Your task to perform on an android device: turn notification dots on Image 0: 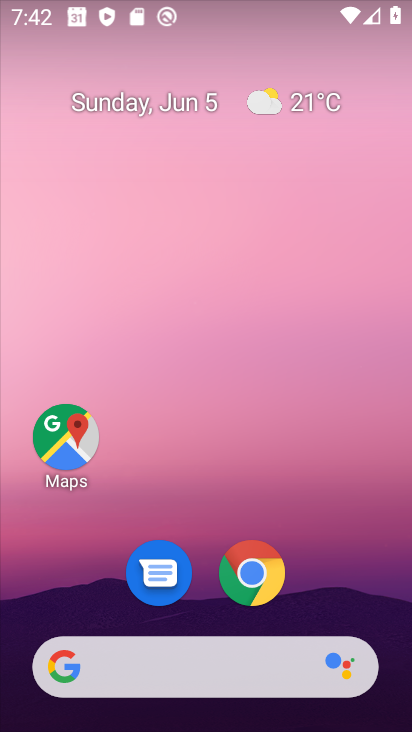
Step 0: drag from (277, 539) to (294, 272)
Your task to perform on an android device: turn notification dots on Image 1: 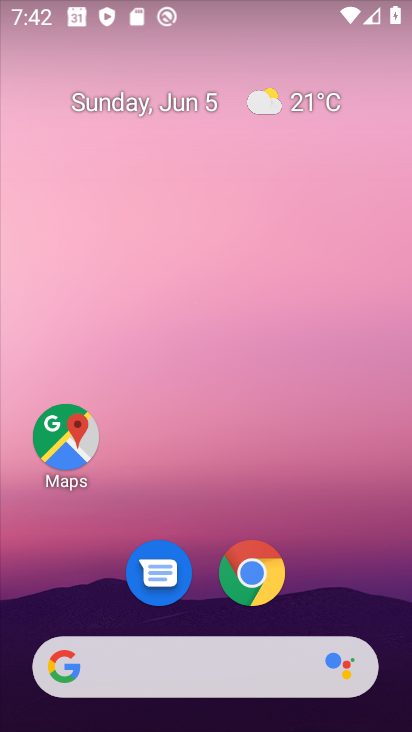
Step 1: drag from (212, 648) to (224, 272)
Your task to perform on an android device: turn notification dots on Image 2: 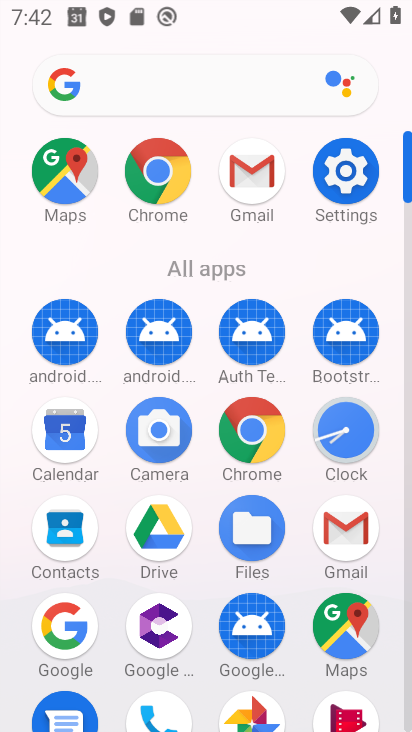
Step 2: click (342, 171)
Your task to perform on an android device: turn notification dots on Image 3: 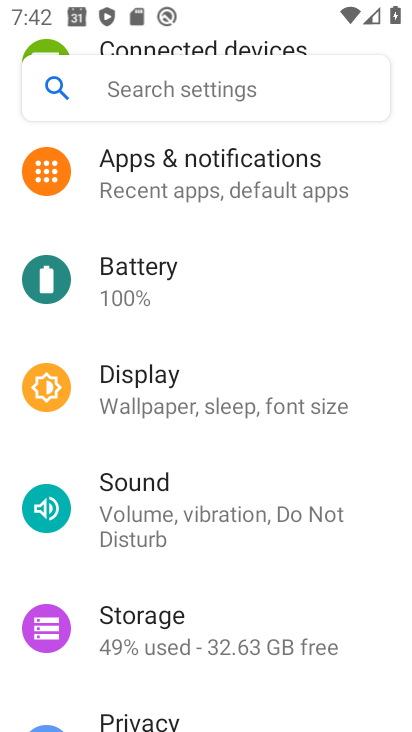
Step 3: click (154, 83)
Your task to perform on an android device: turn notification dots on Image 4: 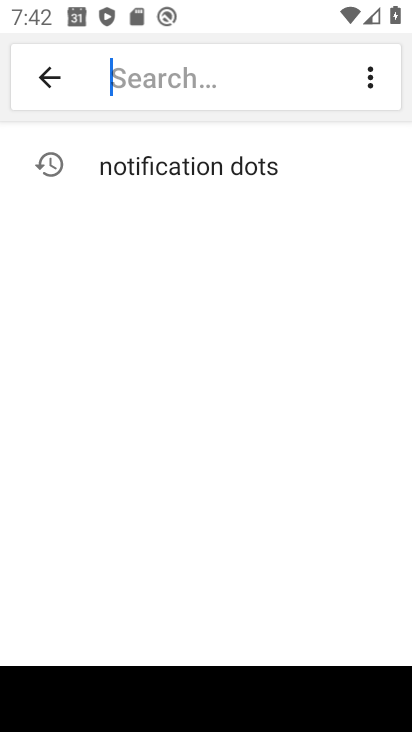
Step 4: click (165, 152)
Your task to perform on an android device: turn notification dots on Image 5: 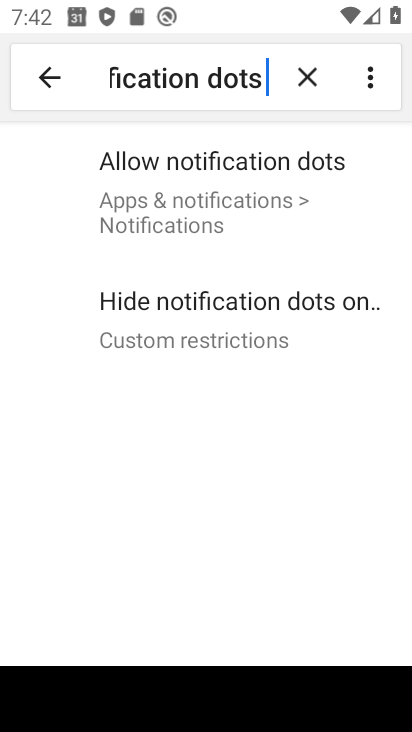
Step 5: click (261, 186)
Your task to perform on an android device: turn notification dots on Image 6: 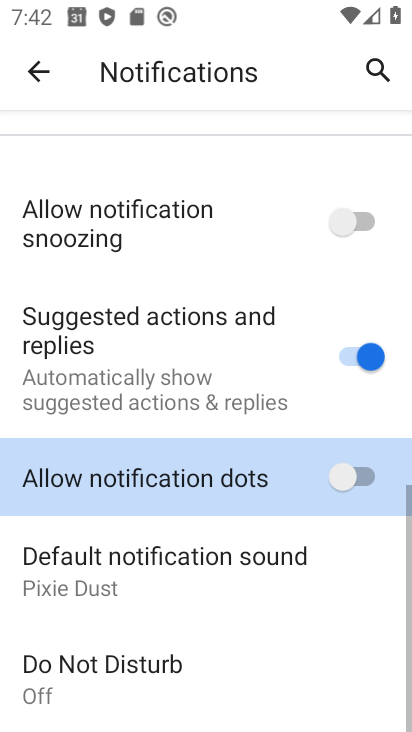
Step 6: click (345, 460)
Your task to perform on an android device: turn notification dots on Image 7: 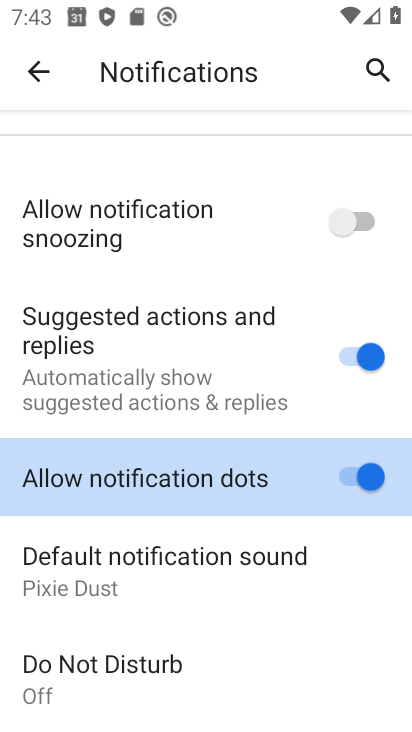
Step 7: task complete